Your task to perform on an android device: What's the weather going to be this weekend? Image 0: 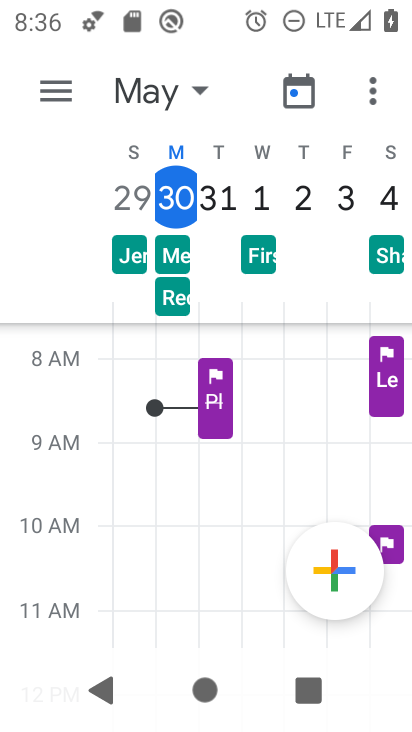
Step 0: press home button
Your task to perform on an android device: What's the weather going to be this weekend? Image 1: 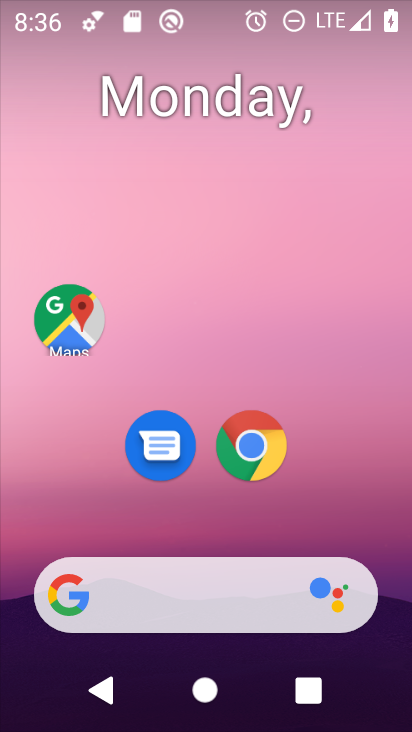
Step 1: drag from (350, 473) to (272, 152)
Your task to perform on an android device: What's the weather going to be this weekend? Image 2: 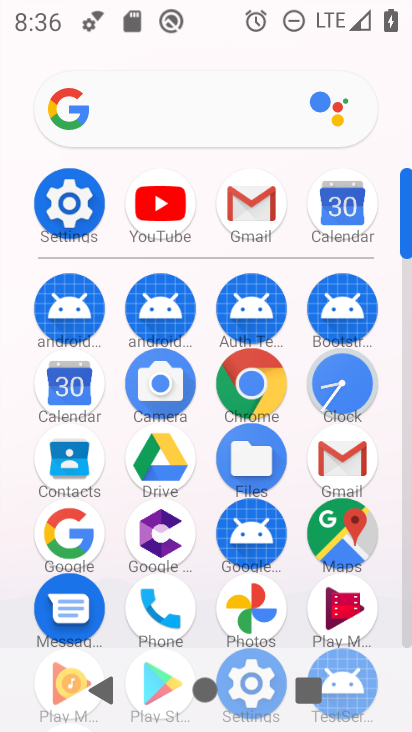
Step 2: click (140, 110)
Your task to perform on an android device: What's the weather going to be this weekend? Image 3: 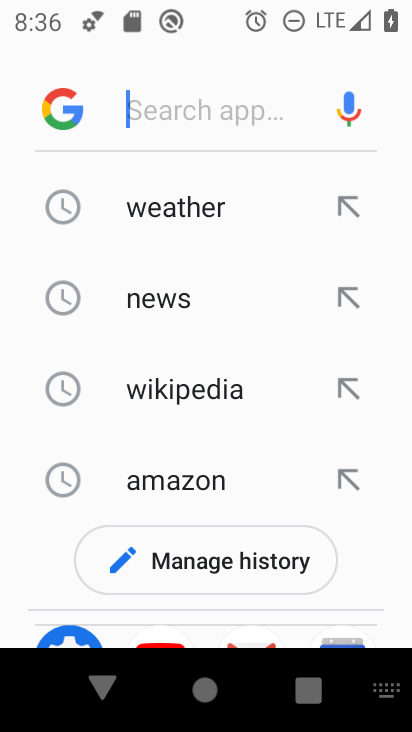
Step 3: click (166, 212)
Your task to perform on an android device: What's the weather going to be this weekend? Image 4: 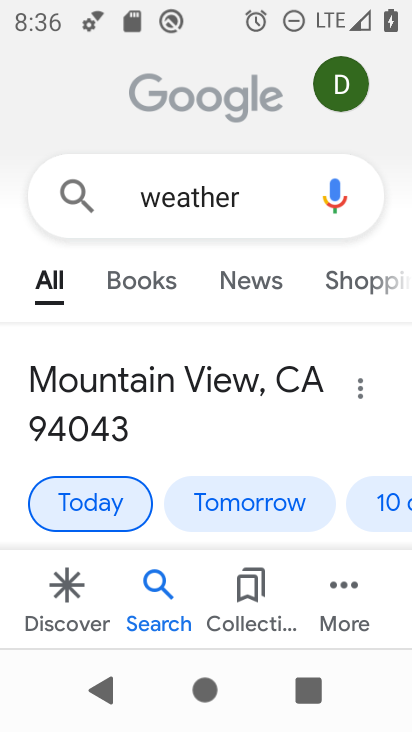
Step 4: click (385, 503)
Your task to perform on an android device: What's the weather going to be this weekend? Image 5: 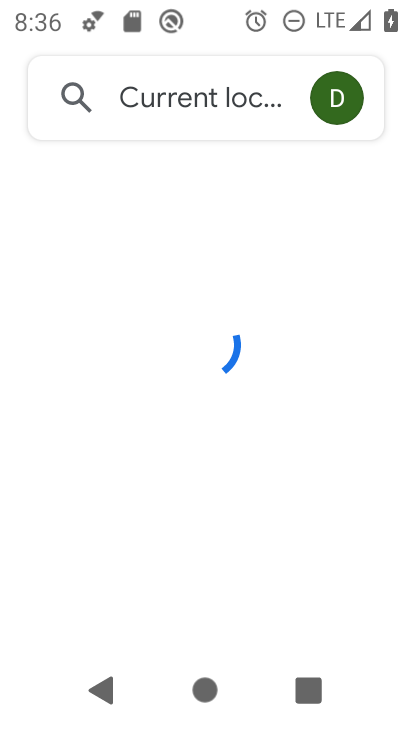
Step 5: click (385, 503)
Your task to perform on an android device: What's the weather going to be this weekend? Image 6: 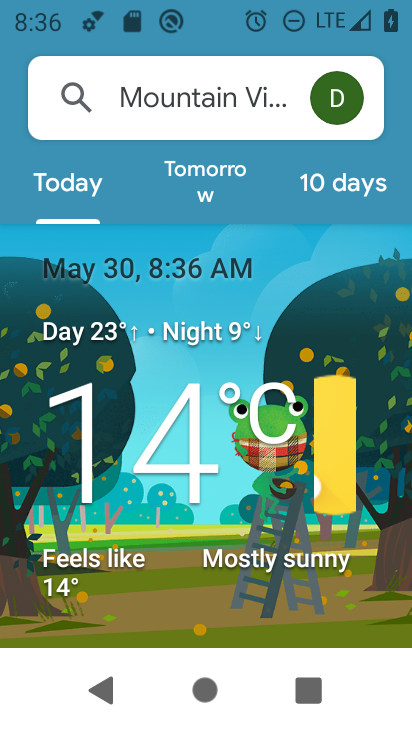
Step 6: drag from (299, 515) to (230, 191)
Your task to perform on an android device: What's the weather going to be this weekend? Image 7: 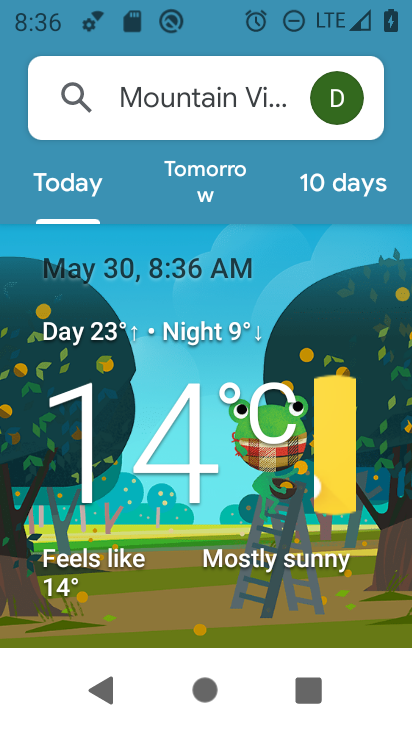
Step 7: click (335, 172)
Your task to perform on an android device: What's the weather going to be this weekend? Image 8: 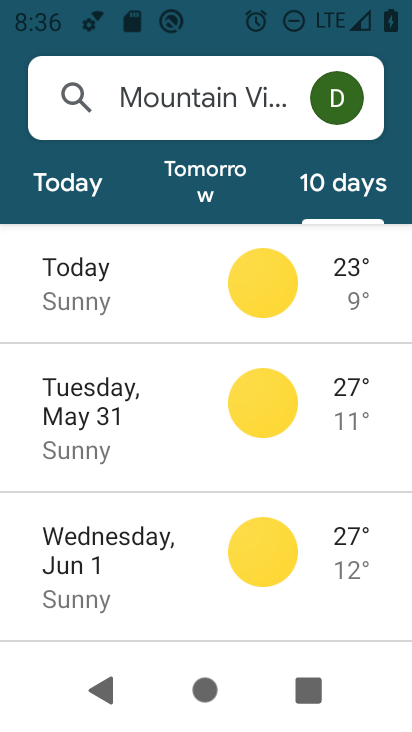
Step 8: task complete